Your task to perform on an android device: move an email to a new category in the gmail app Image 0: 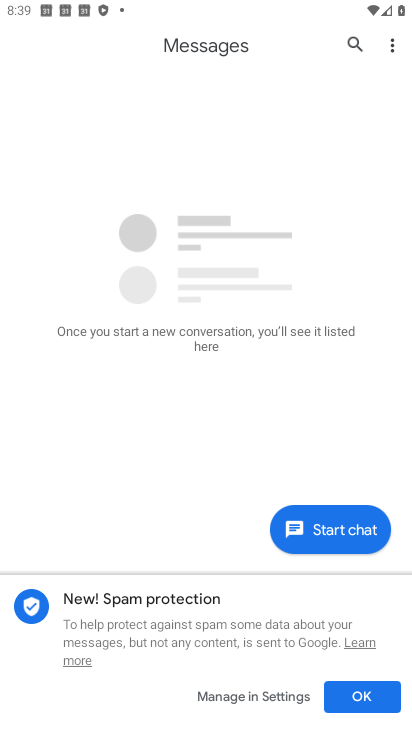
Step 0: press home button
Your task to perform on an android device: move an email to a new category in the gmail app Image 1: 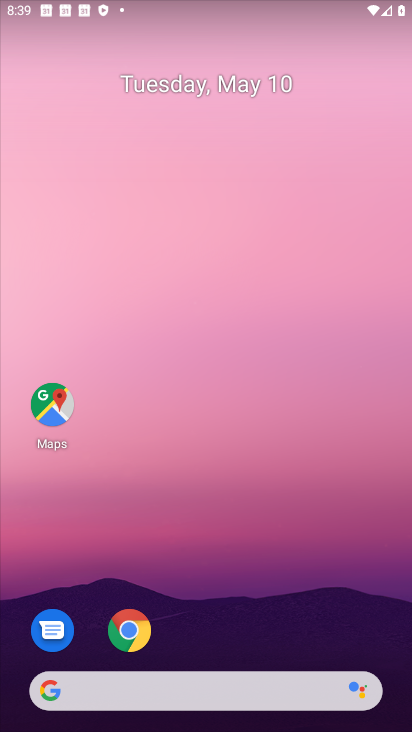
Step 1: drag from (229, 711) to (126, 76)
Your task to perform on an android device: move an email to a new category in the gmail app Image 2: 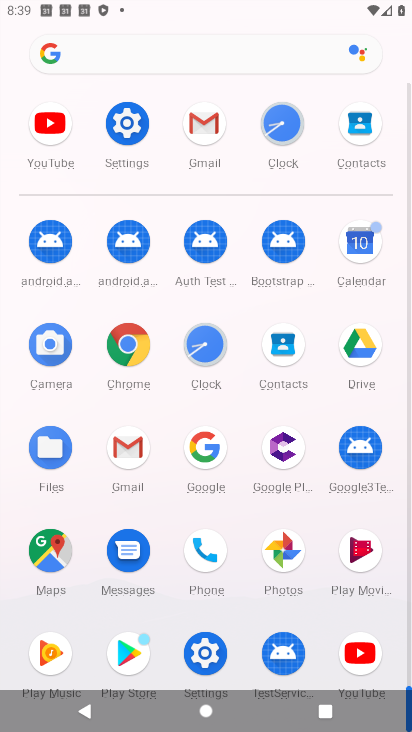
Step 2: click (198, 118)
Your task to perform on an android device: move an email to a new category in the gmail app Image 3: 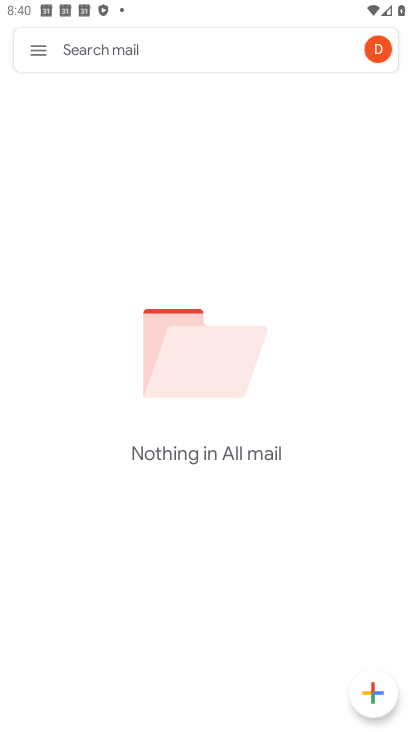
Step 3: task complete